Your task to perform on an android device: Go to calendar. Show me events next week Image 0: 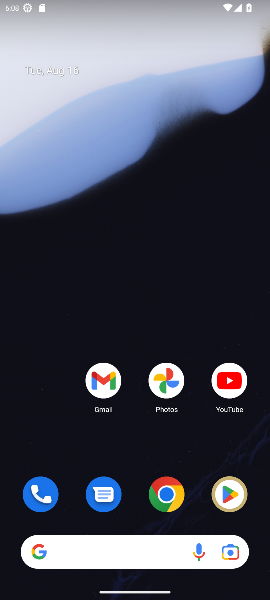
Step 0: drag from (95, 288) to (117, 19)
Your task to perform on an android device: Go to calendar. Show me events next week Image 1: 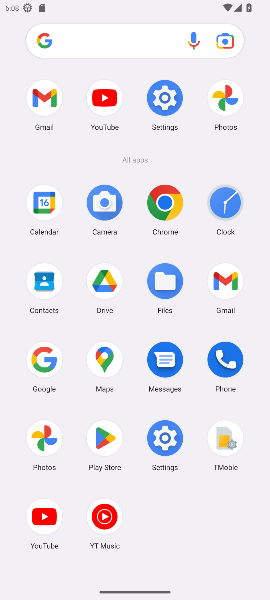
Step 1: drag from (173, 395) to (159, 138)
Your task to perform on an android device: Go to calendar. Show me events next week Image 2: 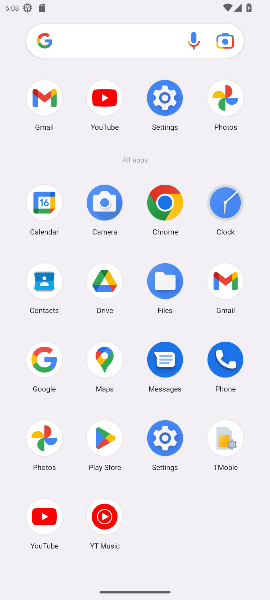
Step 2: click (50, 203)
Your task to perform on an android device: Go to calendar. Show me events next week Image 3: 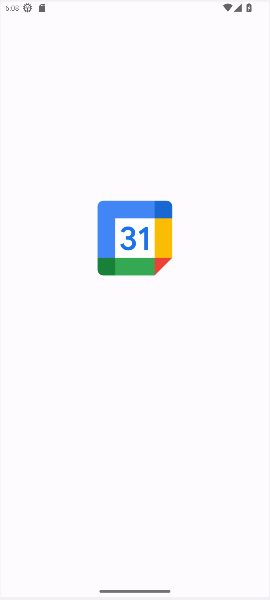
Step 3: task complete